Your task to perform on an android device: turn on the 24-hour format for clock Image 0: 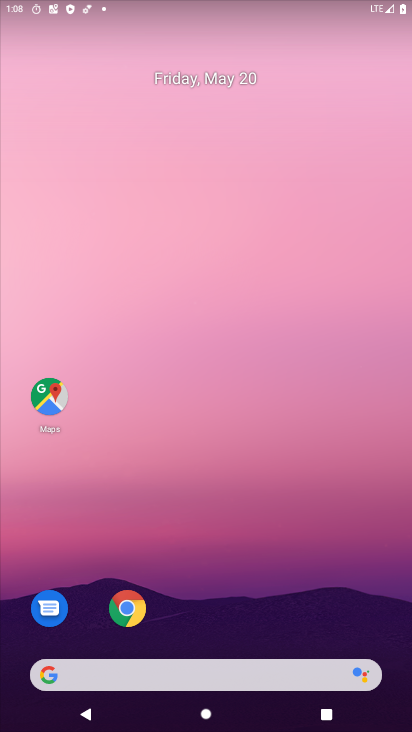
Step 0: drag from (355, 449) to (342, 74)
Your task to perform on an android device: turn on the 24-hour format for clock Image 1: 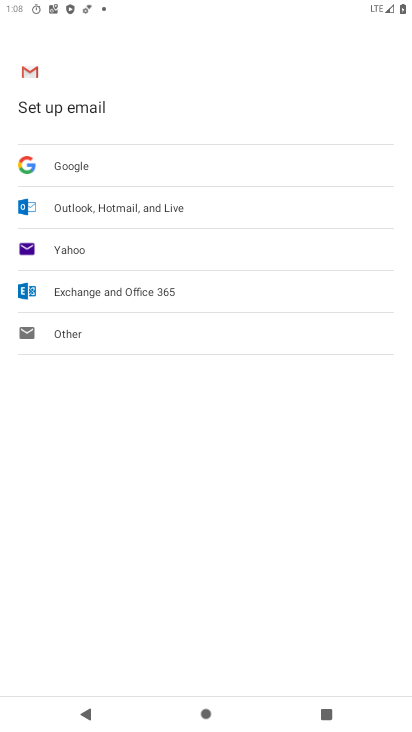
Step 1: press home button
Your task to perform on an android device: turn on the 24-hour format for clock Image 2: 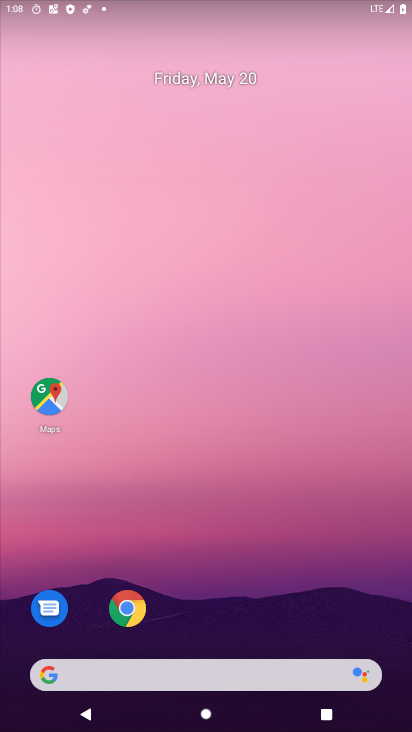
Step 2: drag from (344, 631) to (333, 117)
Your task to perform on an android device: turn on the 24-hour format for clock Image 3: 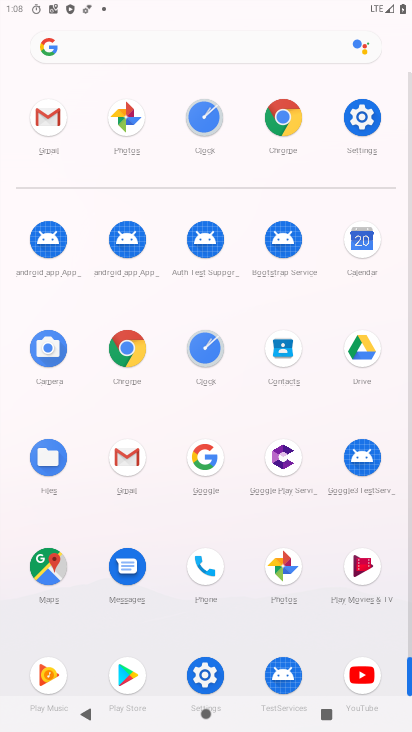
Step 3: click (199, 353)
Your task to perform on an android device: turn on the 24-hour format for clock Image 4: 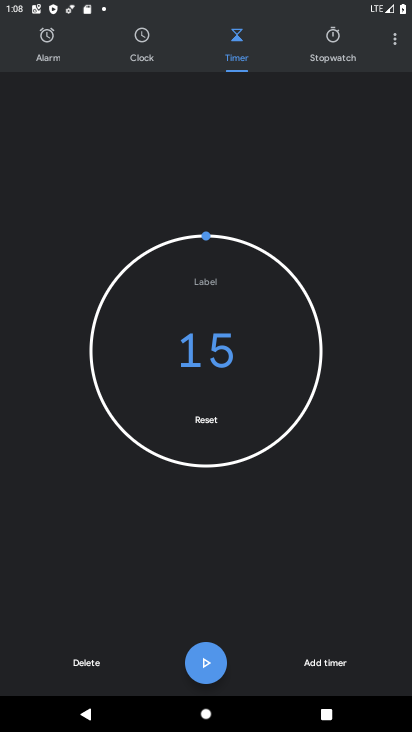
Step 4: click (393, 45)
Your task to perform on an android device: turn on the 24-hour format for clock Image 5: 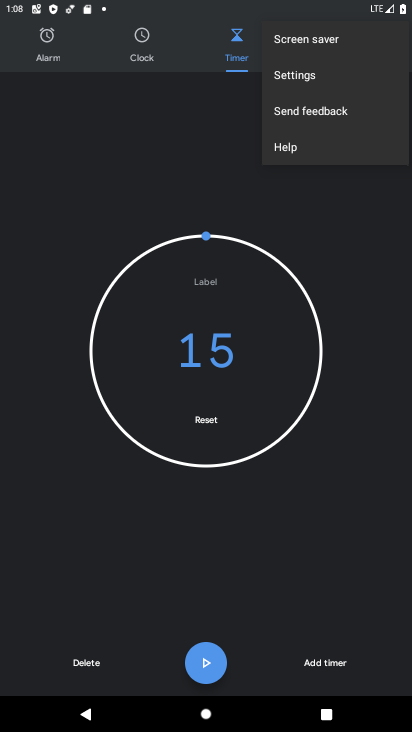
Step 5: click (306, 72)
Your task to perform on an android device: turn on the 24-hour format for clock Image 6: 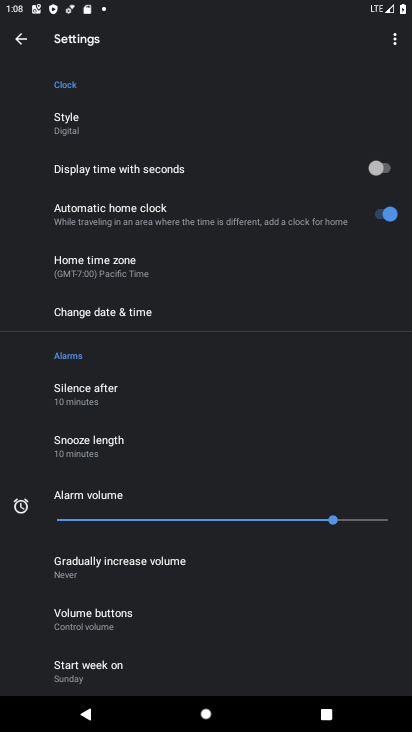
Step 6: click (220, 312)
Your task to perform on an android device: turn on the 24-hour format for clock Image 7: 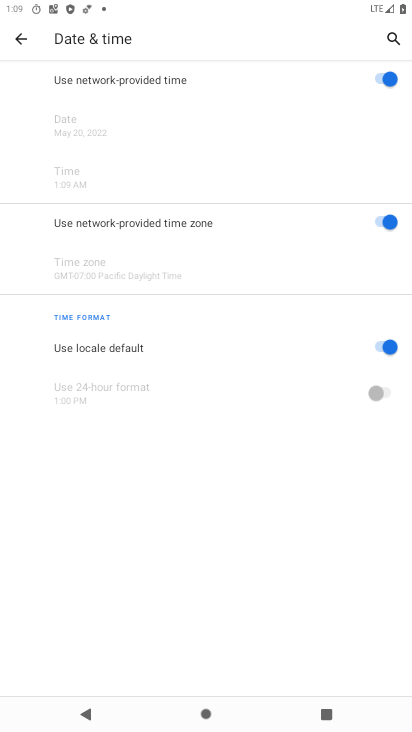
Step 7: click (228, 354)
Your task to perform on an android device: turn on the 24-hour format for clock Image 8: 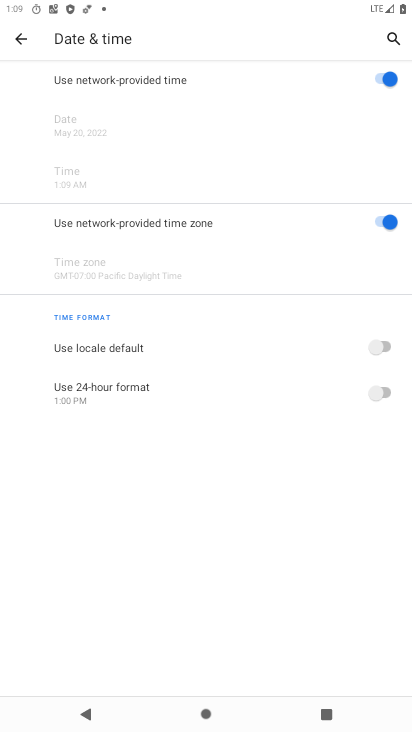
Step 8: click (386, 390)
Your task to perform on an android device: turn on the 24-hour format for clock Image 9: 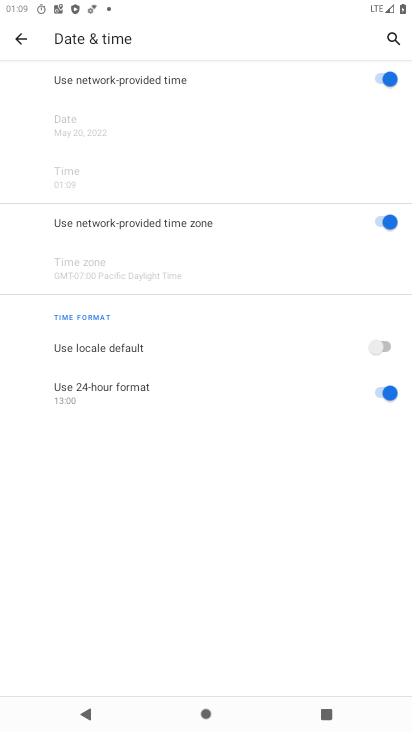
Step 9: task complete